Your task to perform on an android device: turn off airplane mode Image 0: 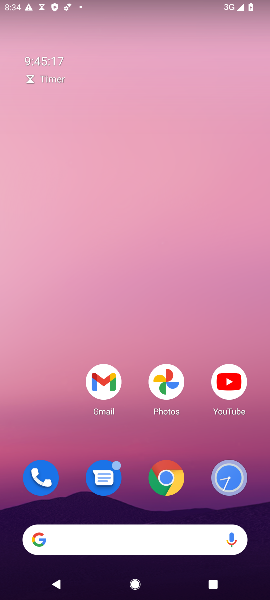
Step 0: drag from (196, 441) to (148, 56)
Your task to perform on an android device: turn off airplane mode Image 1: 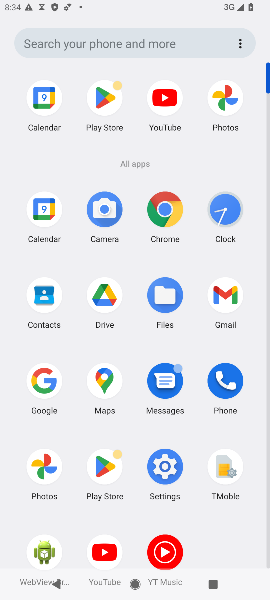
Step 1: click (154, 463)
Your task to perform on an android device: turn off airplane mode Image 2: 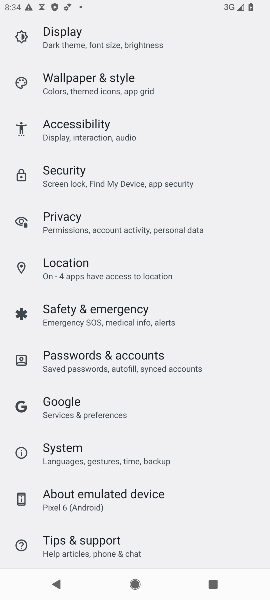
Step 2: drag from (203, 88) to (197, 455)
Your task to perform on an android device: turn off airplane mode Image 3: 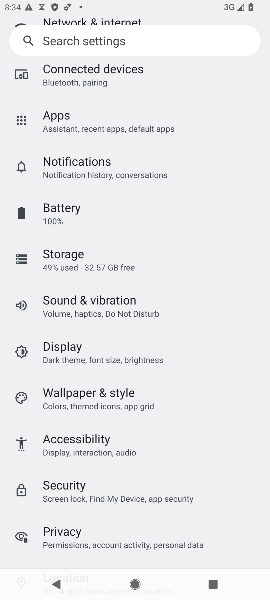
Step 3: drag from (167, 64) to (172, 408)
Your task to perform on an android device: turn off airplane mode Image 4: 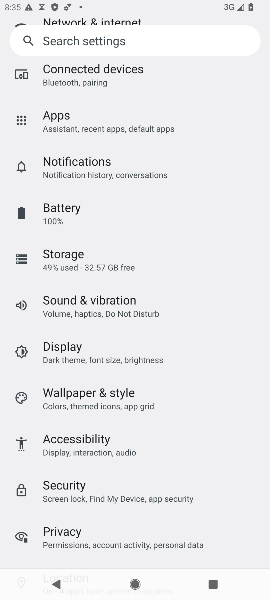
Step 4: drag from (133, 109) to (140, 529)
Your task to perform on an android device: turn off airplane mode Image 5: 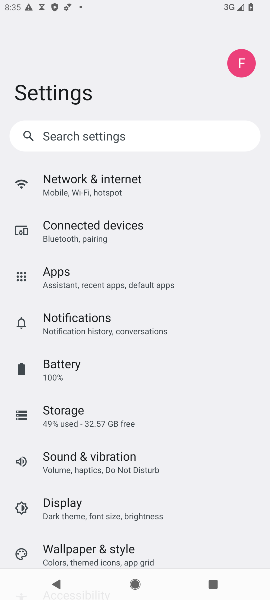
Step 5: click (98, 192)
Your task to perform on an android device: turn off airplane mode Image 6: 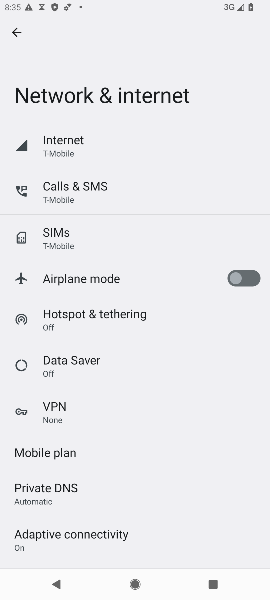
Step 6: task complete